Your task to perform on an android device: change notifications settings Image 0: 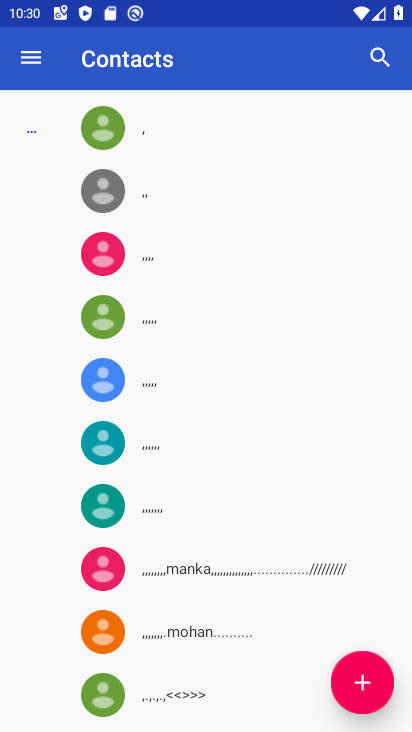
Step 0: press home button
Your task to perform on an android device: change notifications settings Image 1: 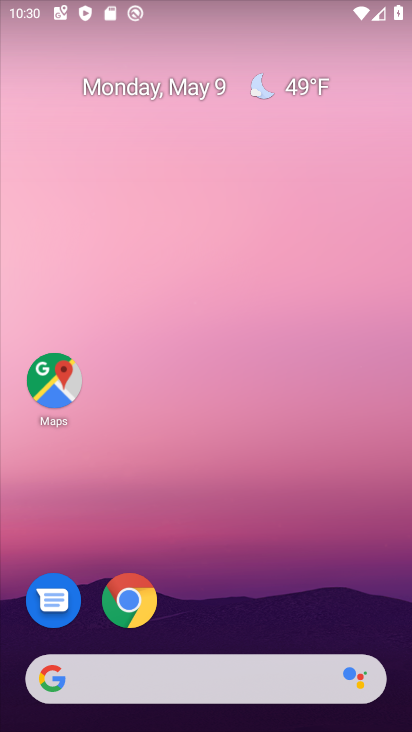
Step 1: drag from (359, 593) to (331, 91)
Your task to perform on an android device: change notifications settings Image 2: 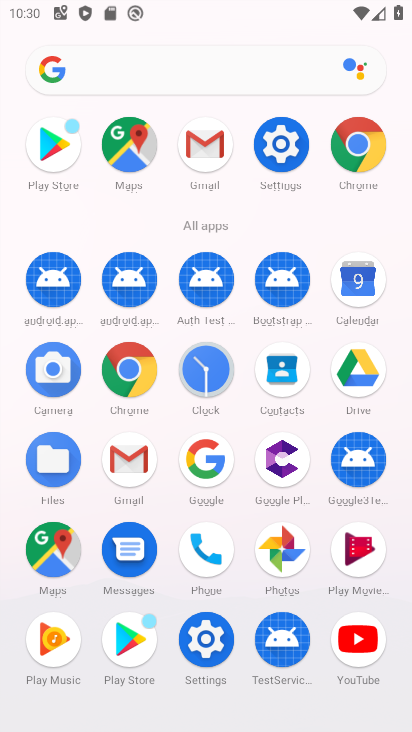
Step 2: click (275, 158)
Your task to perform on an android device: change notifications settings Image 3: 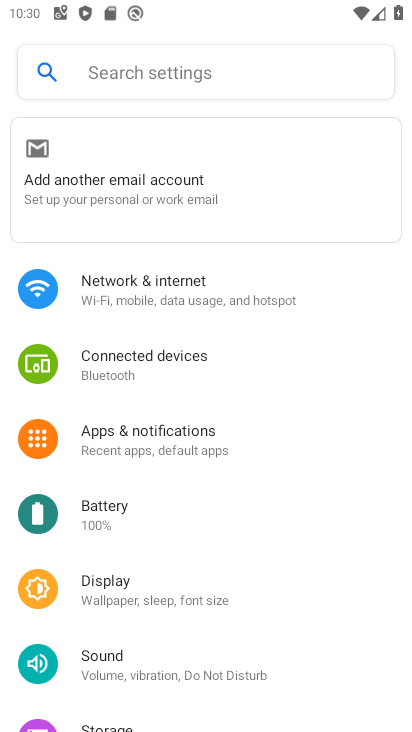
Step 3: click (192, 444)
Your task to perform on an android device: change notifications settings Image 4: 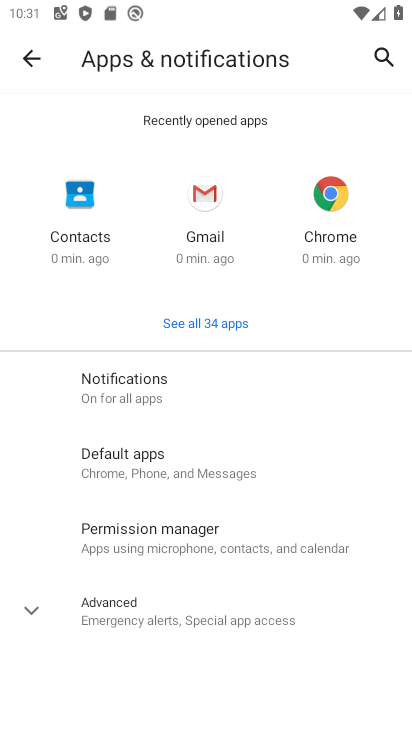
Step 4: click (146, 385)
Your task to perform on an android device: change notifications settings Image 5: 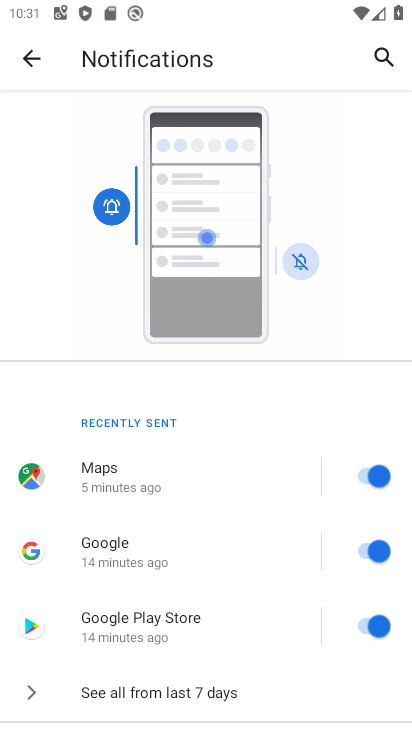
Step 5: task complete